Your task to perform on an android device: check battery use Image 0: 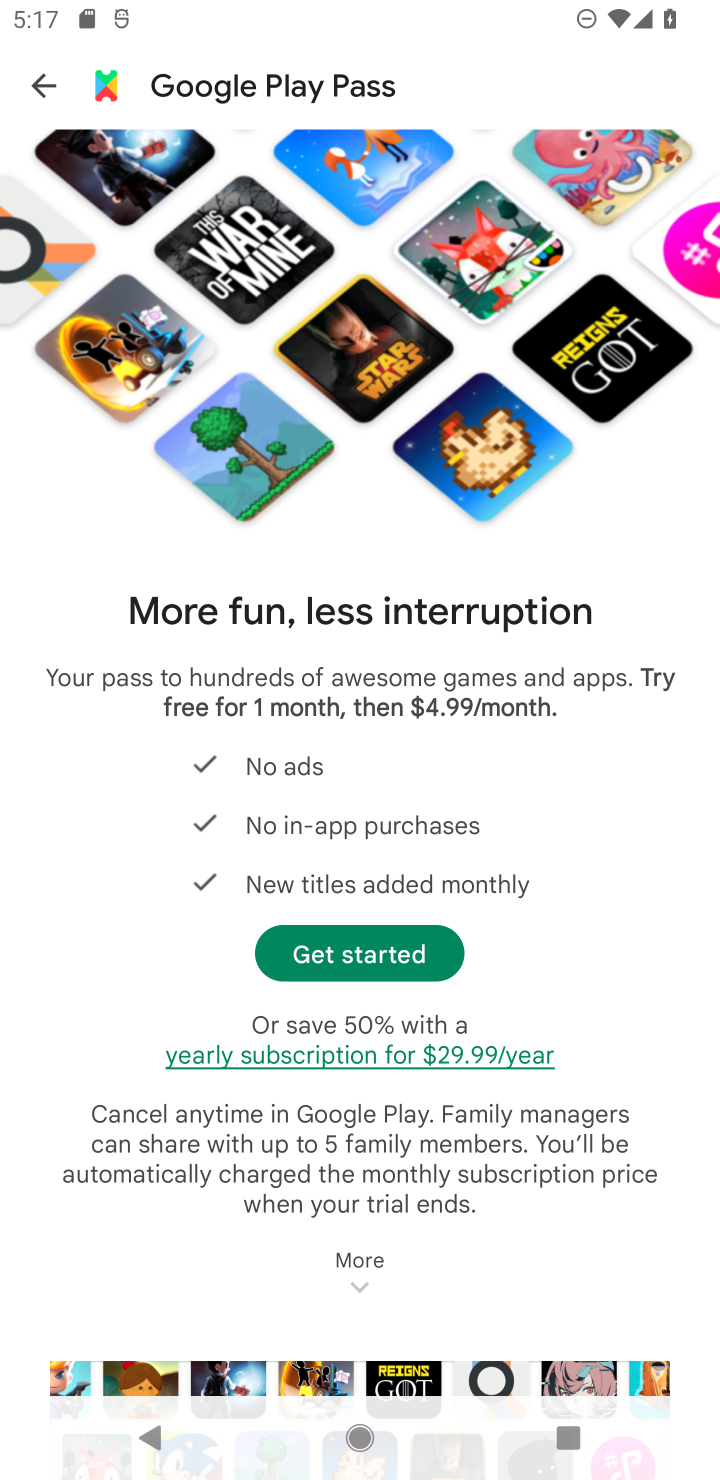
Step 0: click (708, 765)
Your task to perform on an android device: check battery use Image 1: 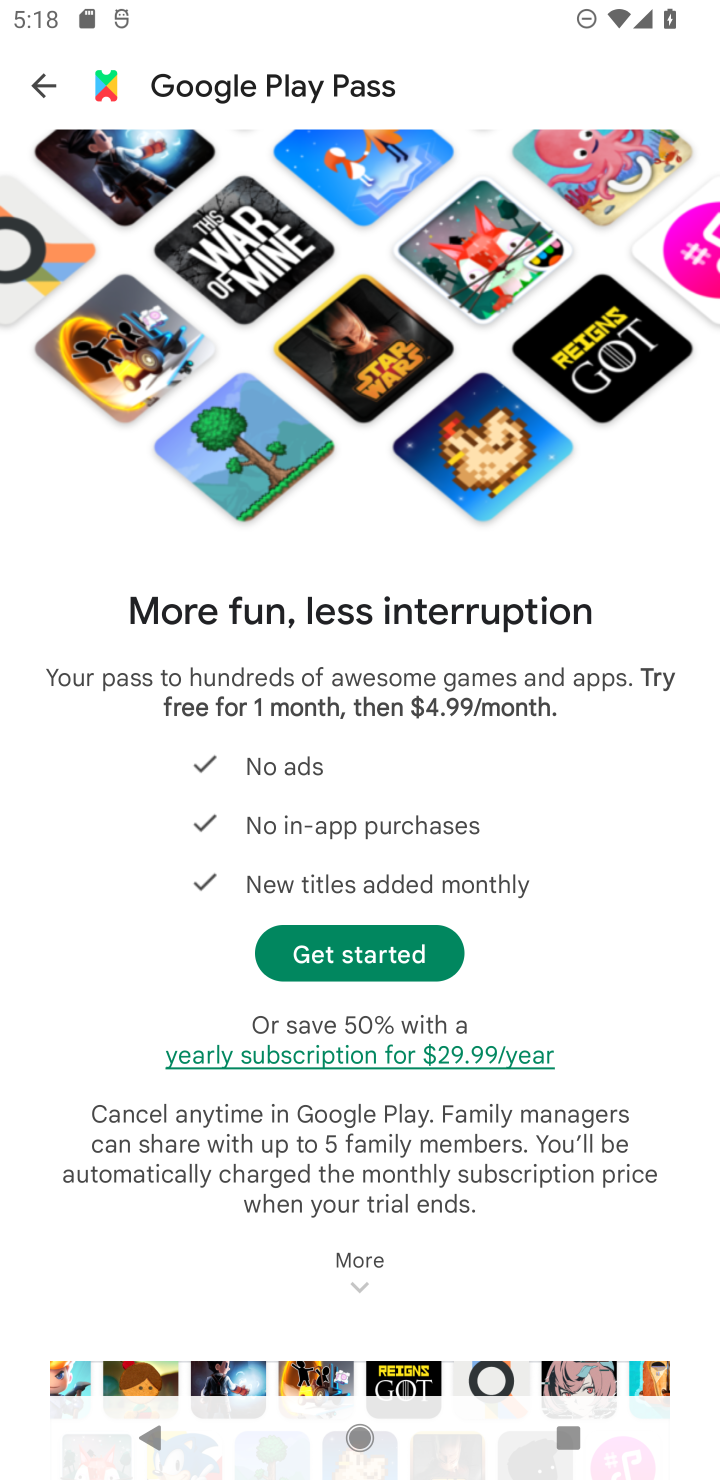
Step 1: press home button
Your task to perform on an android device: check battery use Image 2: 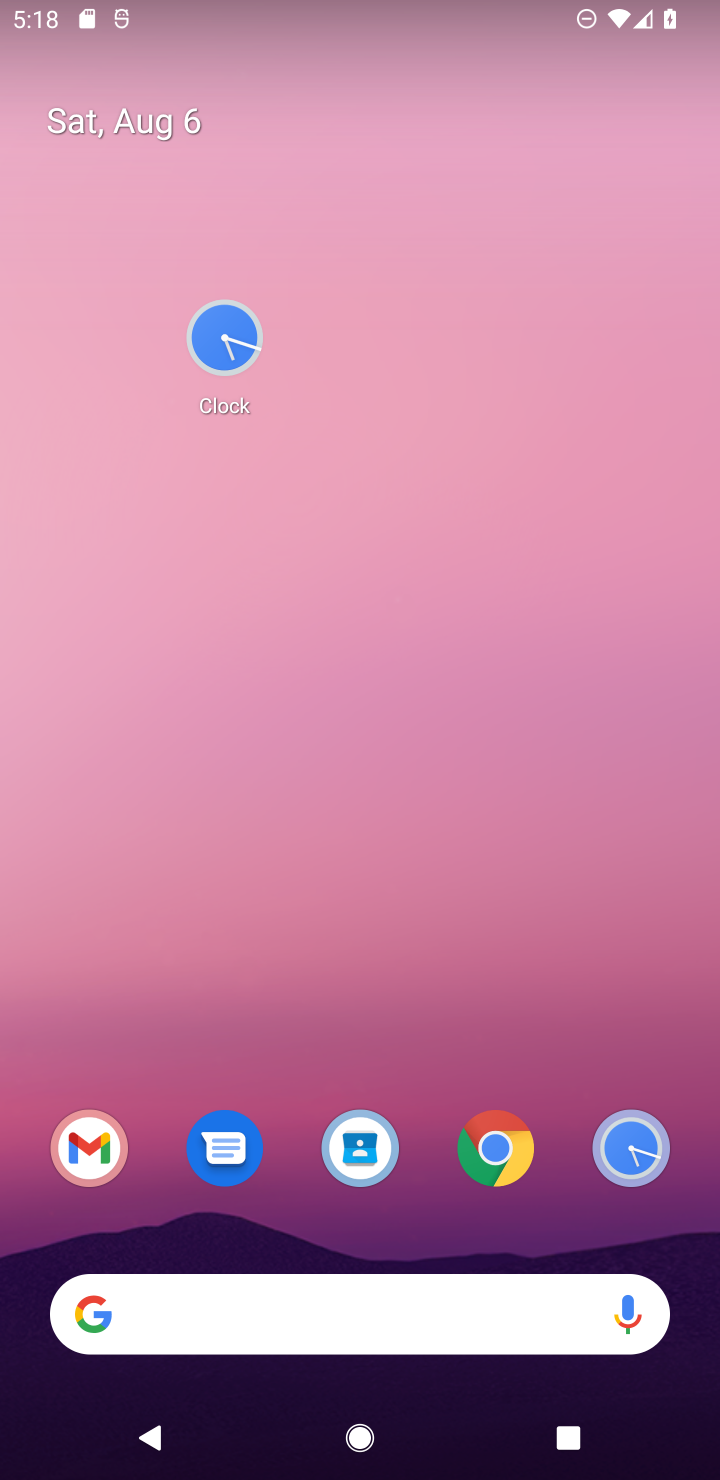
Step 2: drag from (309, 1247) to (352, 150)
Your task to perform on an android device: check battery use Image 3: 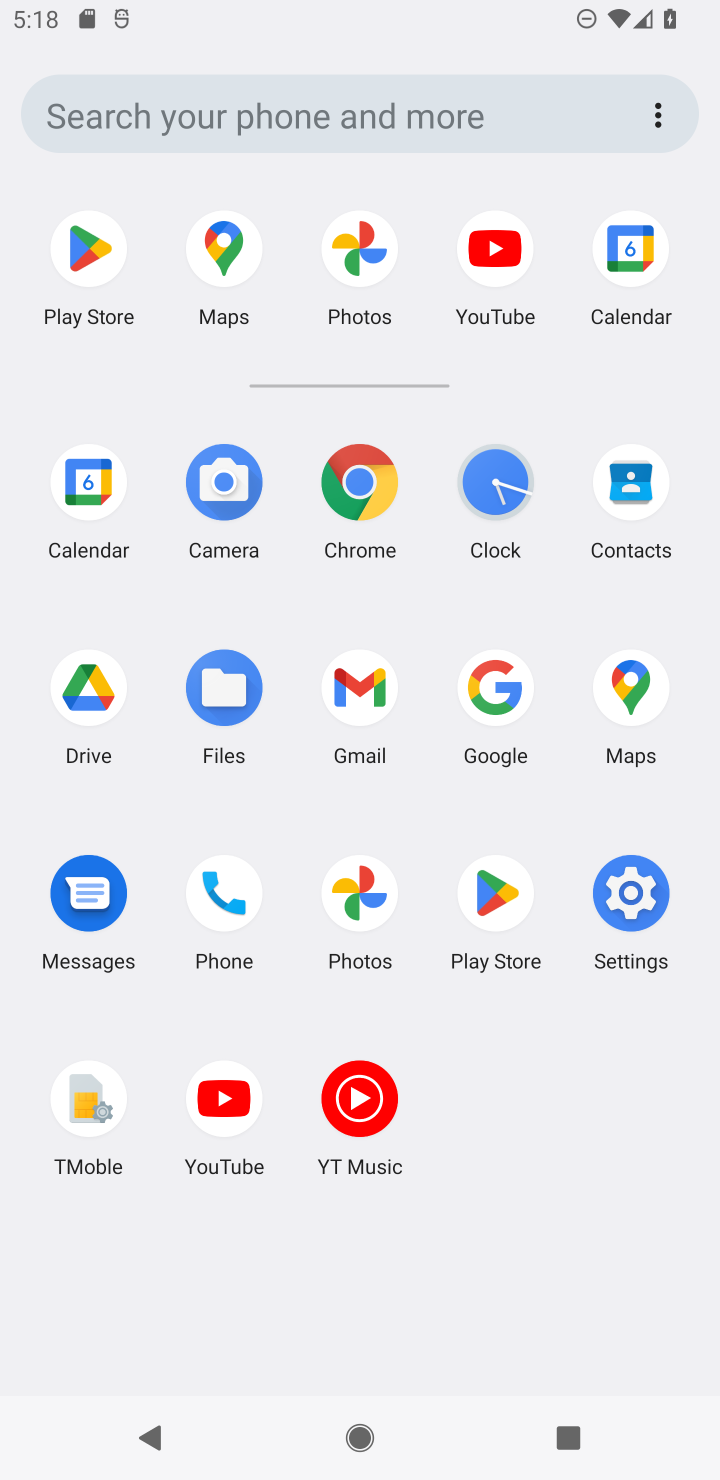
Step 3: click (599, 902)
Your task to perform on an android device: check battery use Image 4: 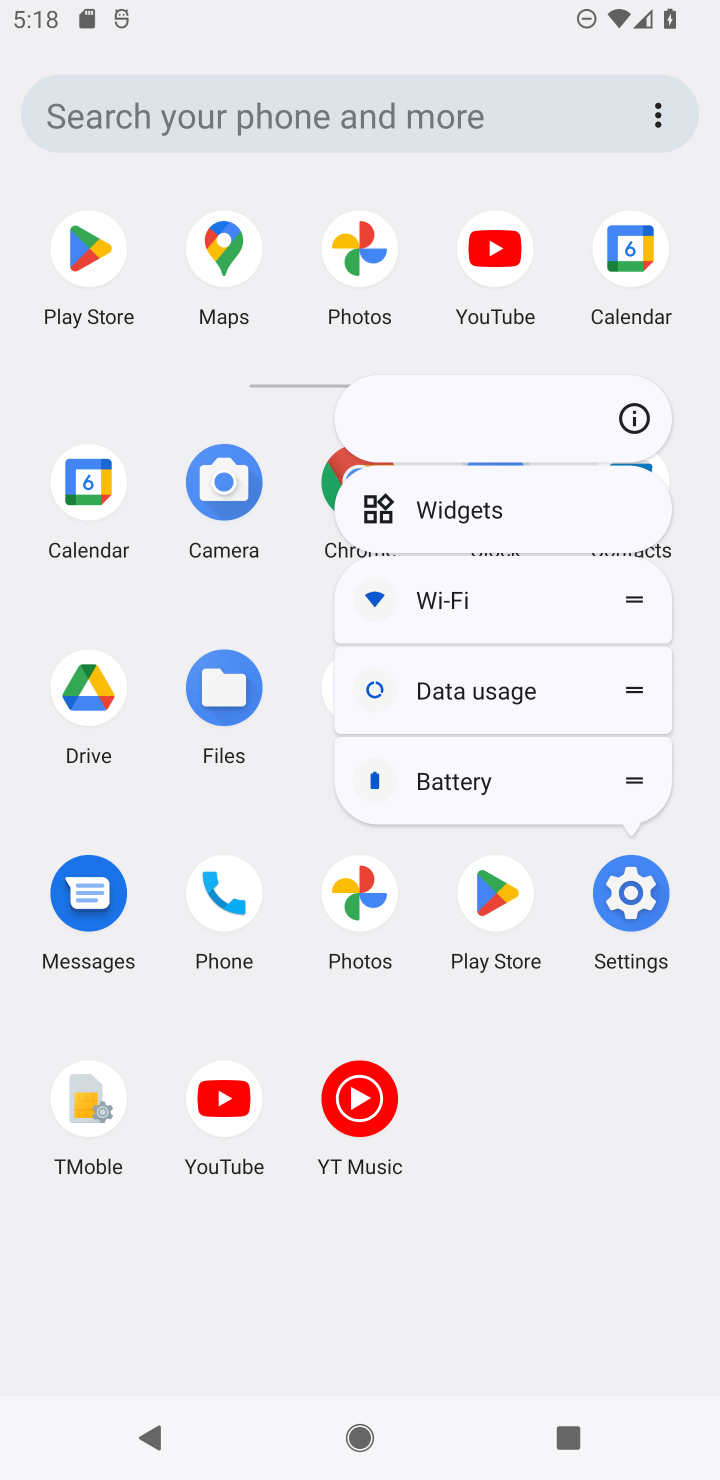
Step 4: click (622, 407)
Your task to perform on an android device: check battery use Image 5: 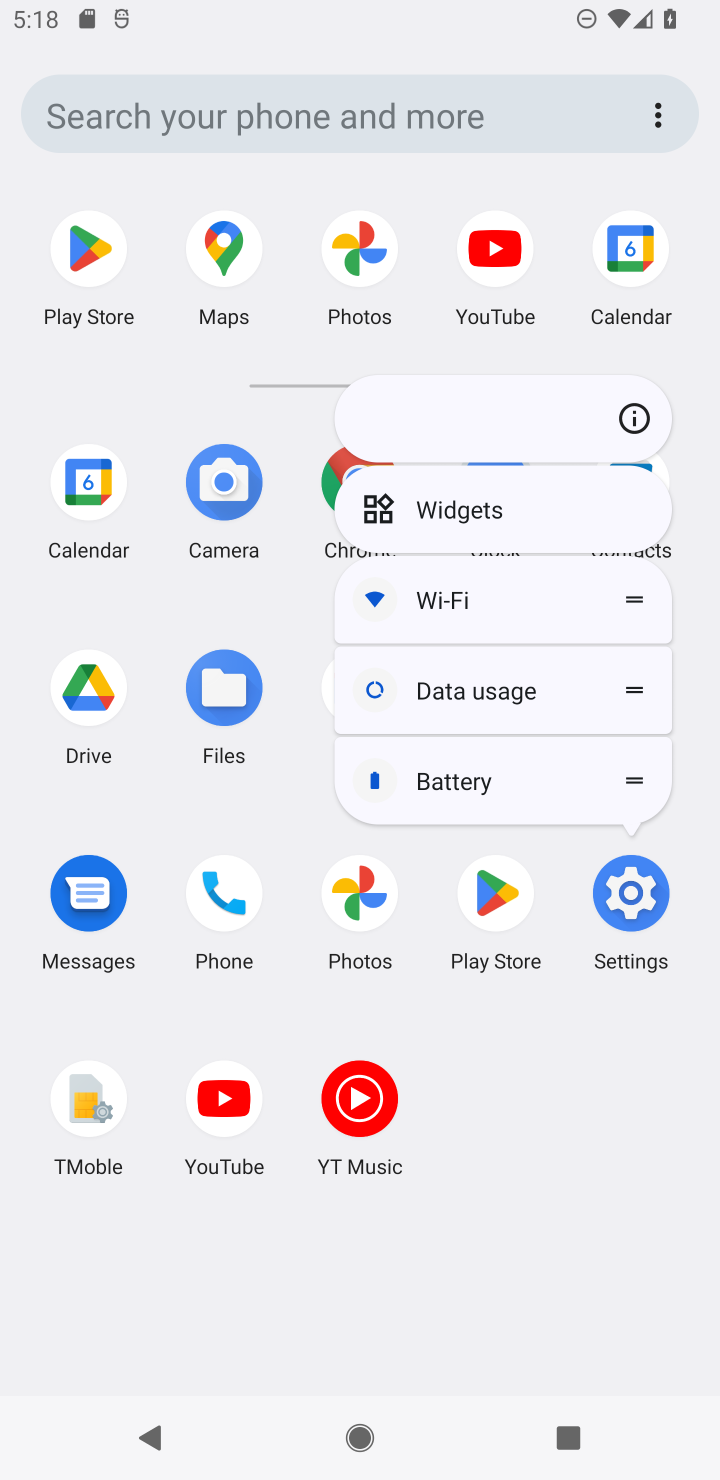
Step 5: click (613, 413)
Your task to perform on an android device: check battery use Image 6: 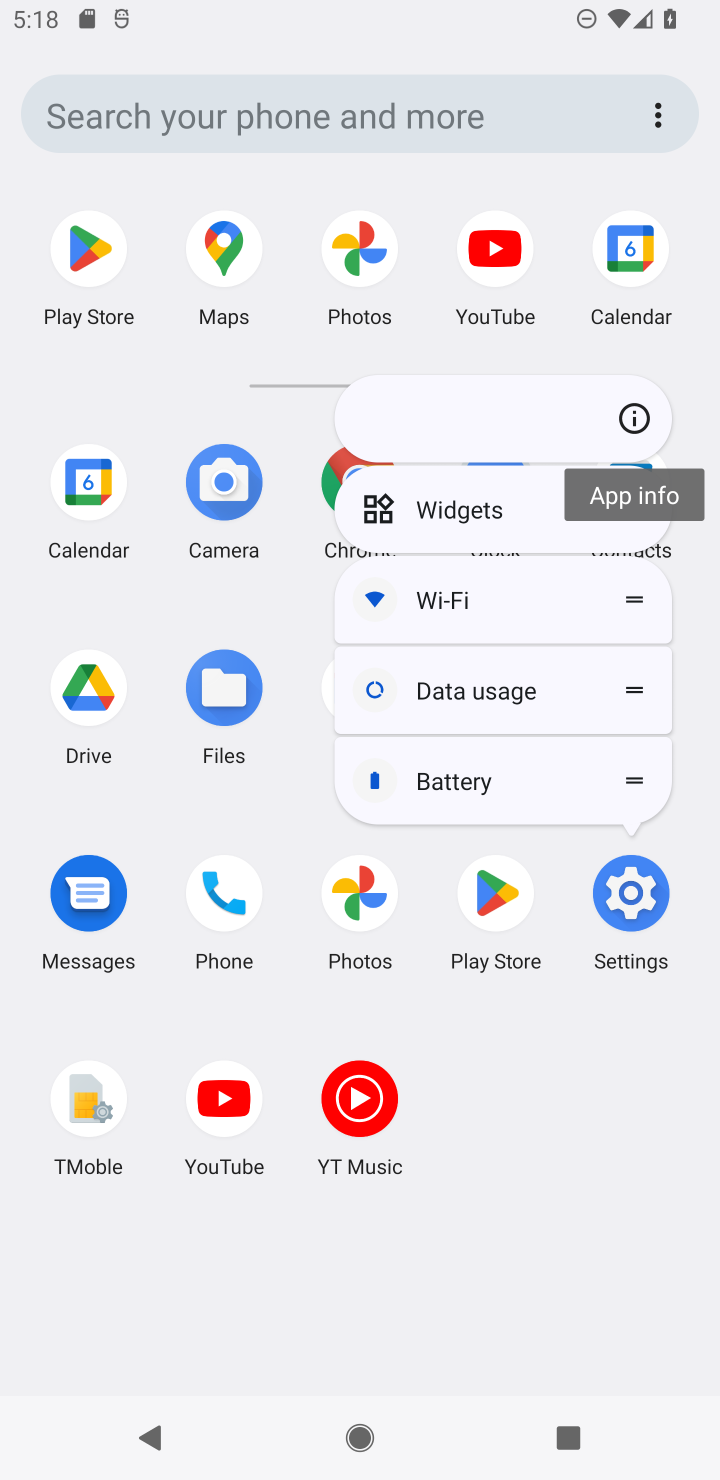
Step 6: click (607, 403)
Your task to perform on an android device: check battery use Image 7: 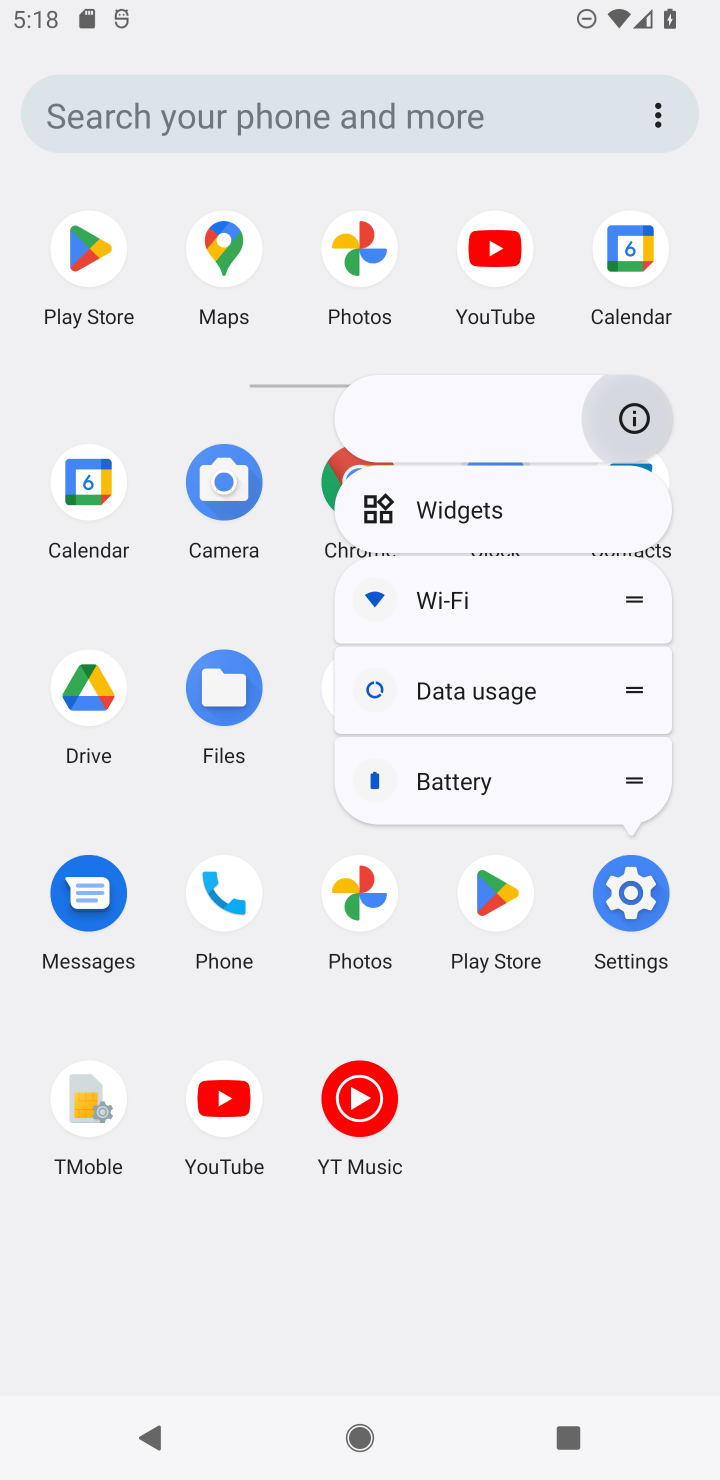
Step 7: click (621, 910)
Your task to perform on an android device: check battery use Image 8: 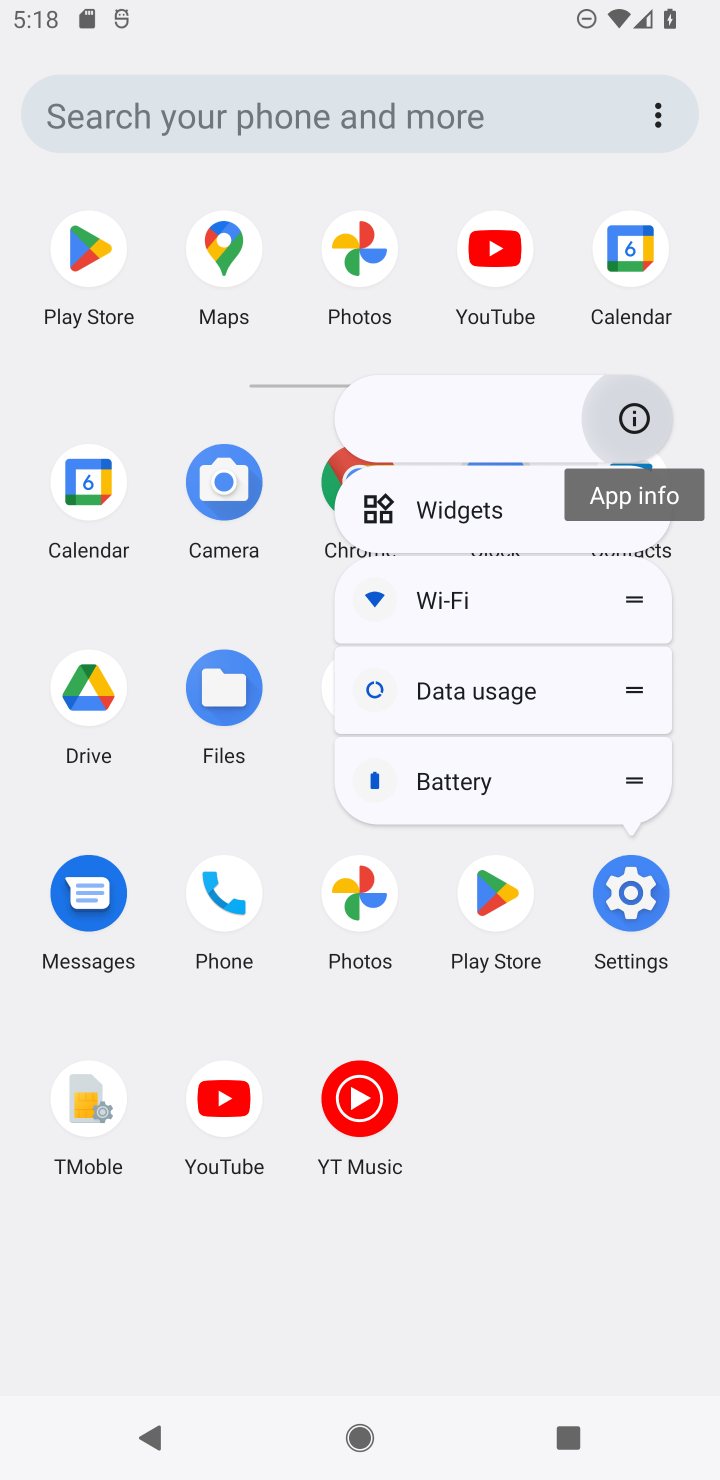
Step 8: click (621, 910)
Your task to perform on an android device: check battery use Image 9: 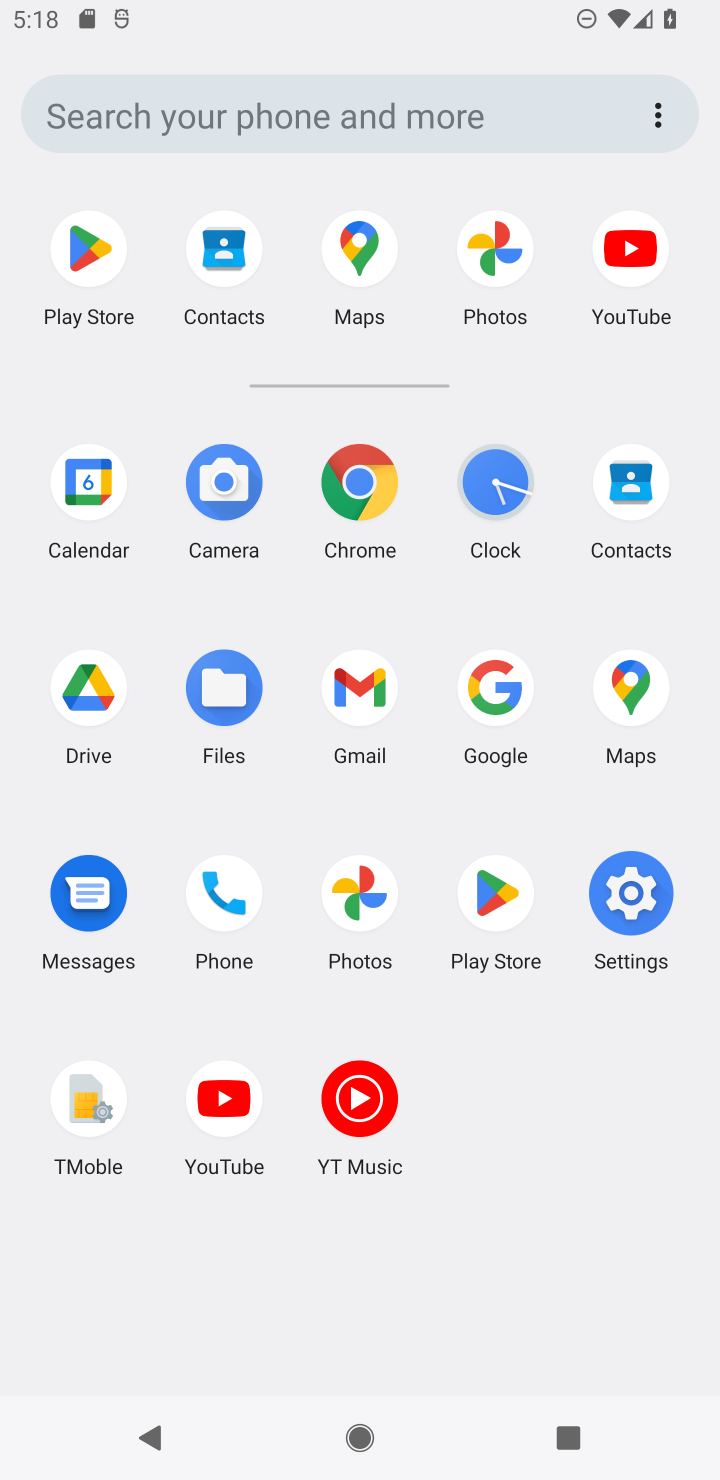
Step 9: click (611, 904)
Your task to perform on an android device: check battery use Image 10: 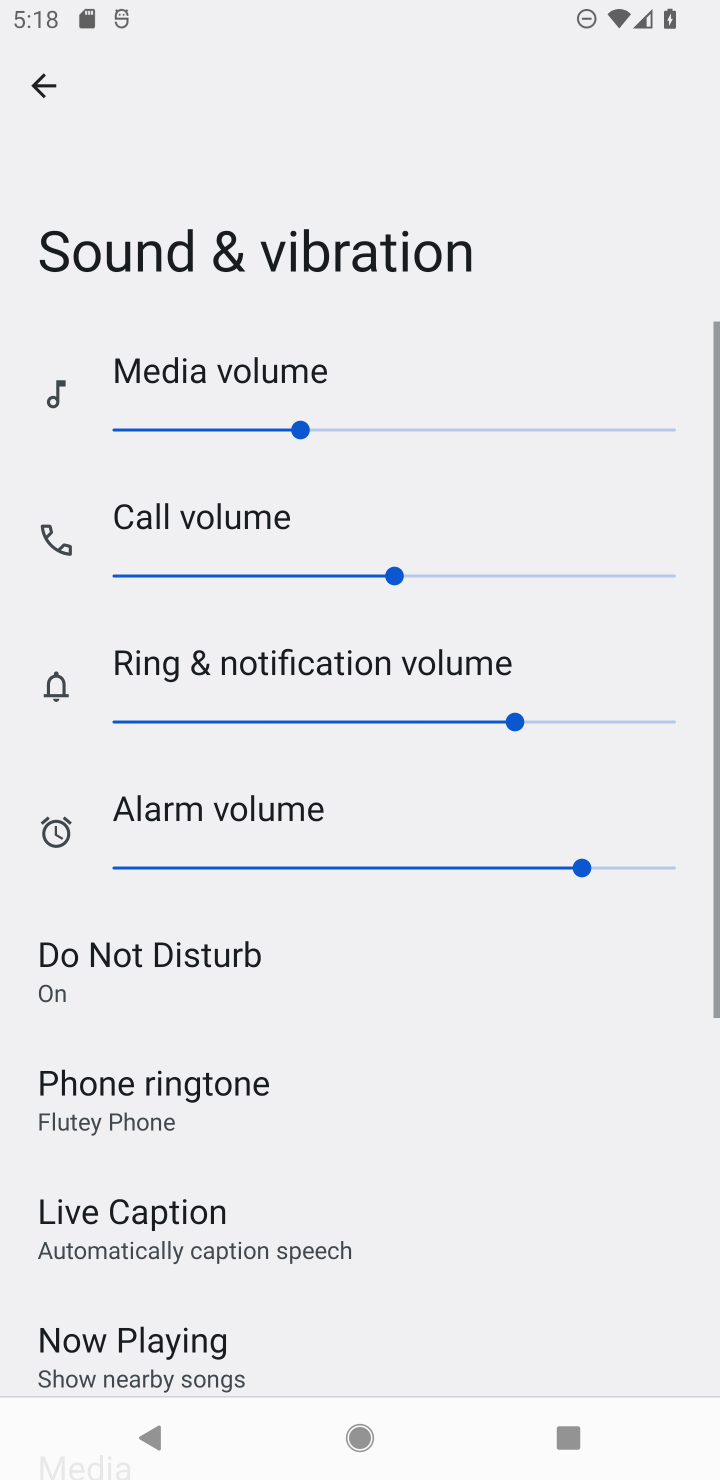
Step 10: press back button
Your task to perform on an android device: check battery use Image 11: 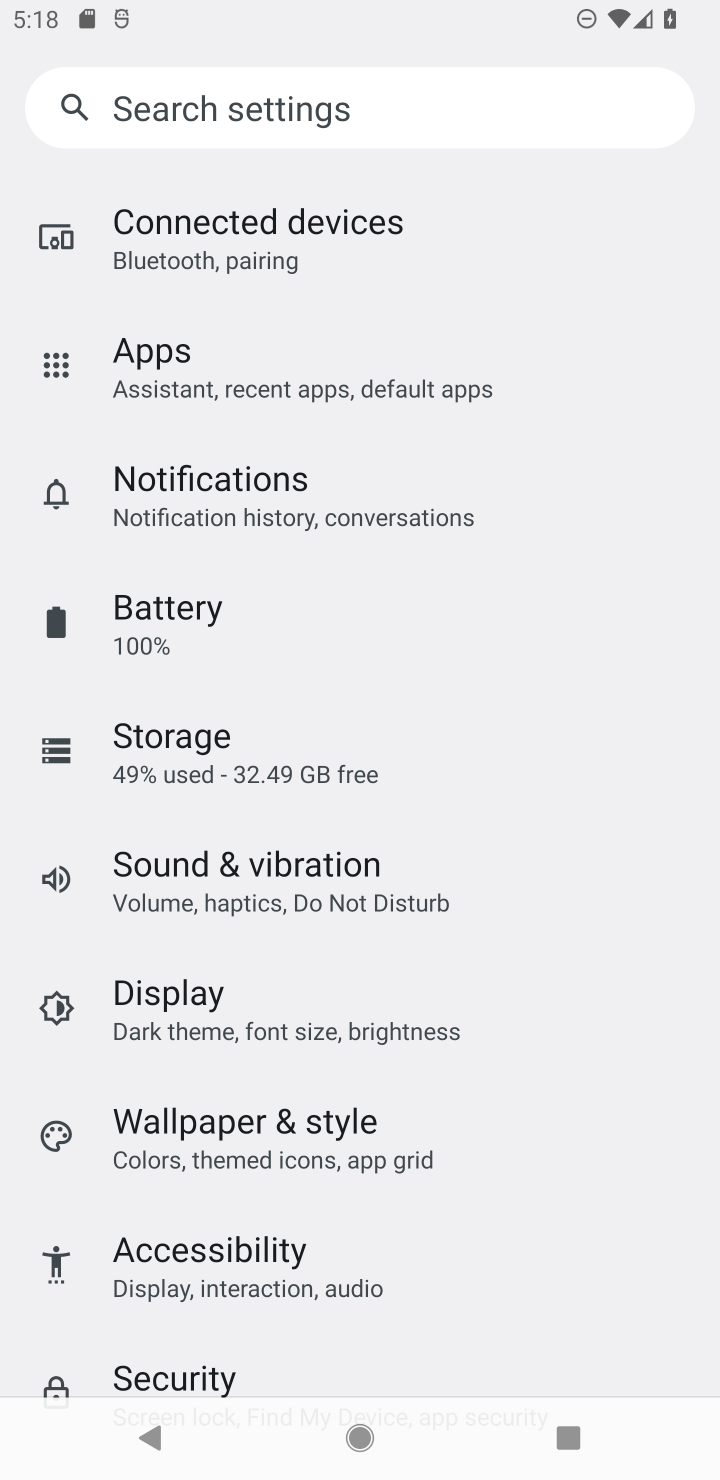
Step 11: click (211, 609)
Your task to perform on an android device: check battery use Image 12: 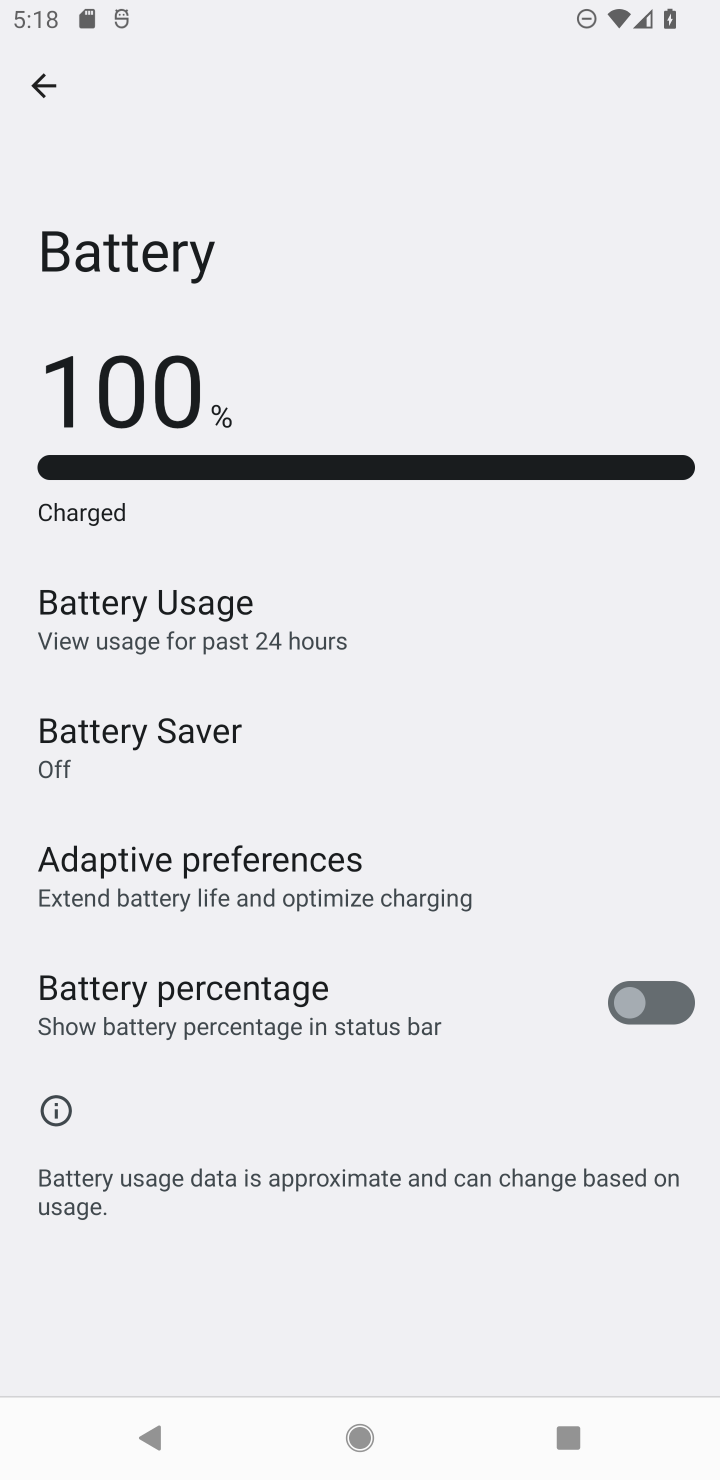
Step 12: drag from (337, 991) to (389, 634)
Your task to perform on an android device: check battery use Image 13: 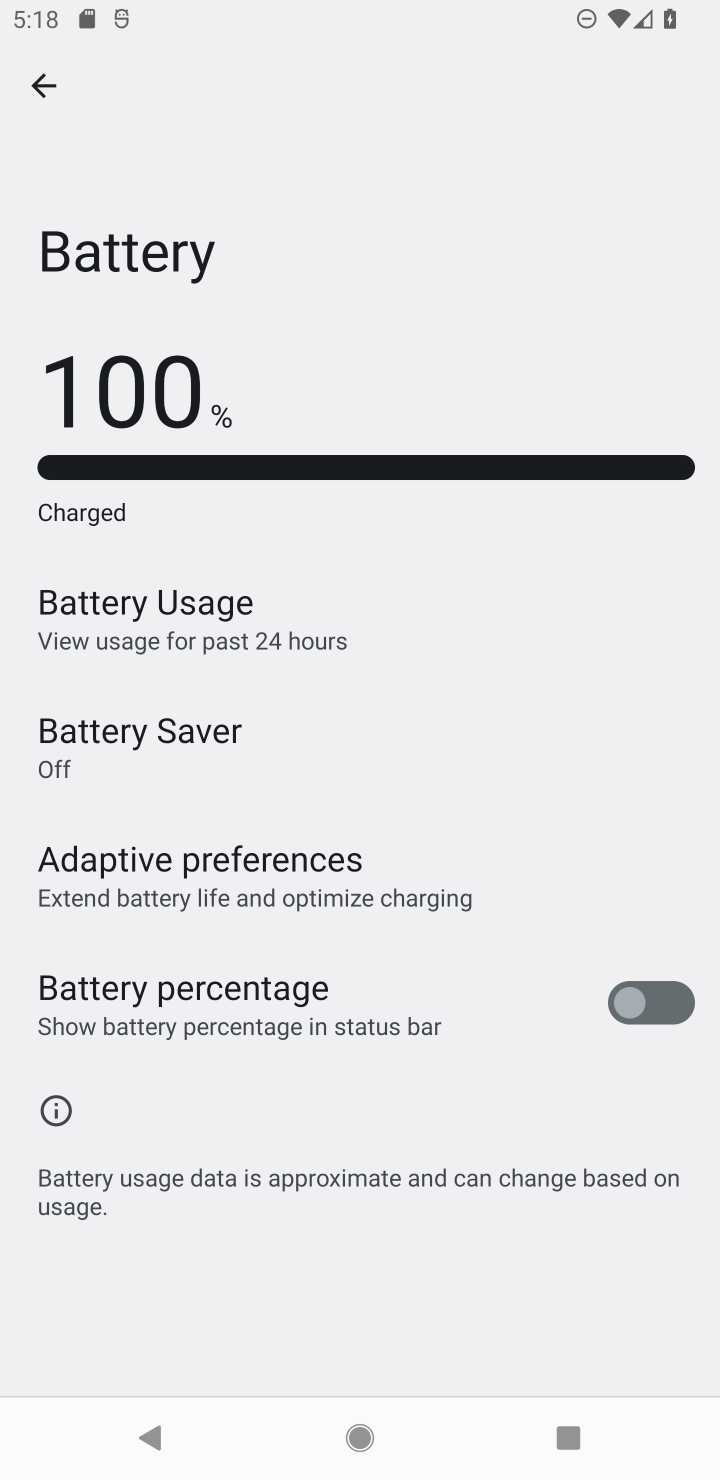
Step 13: click (271, 630)
Your task to perform on an android device: check battery use Image 14: 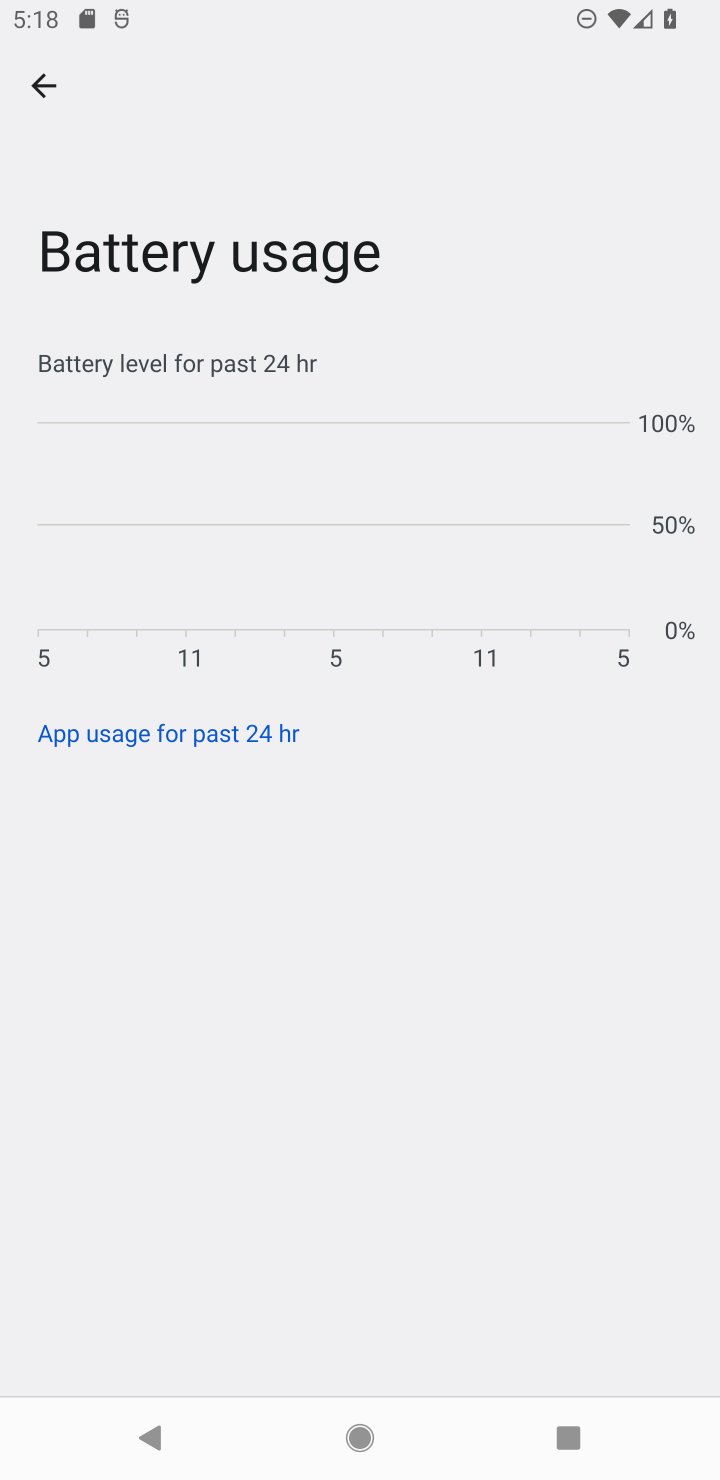
Step 14: task complete